Your task to perform on an android device: check google app version Image 0: 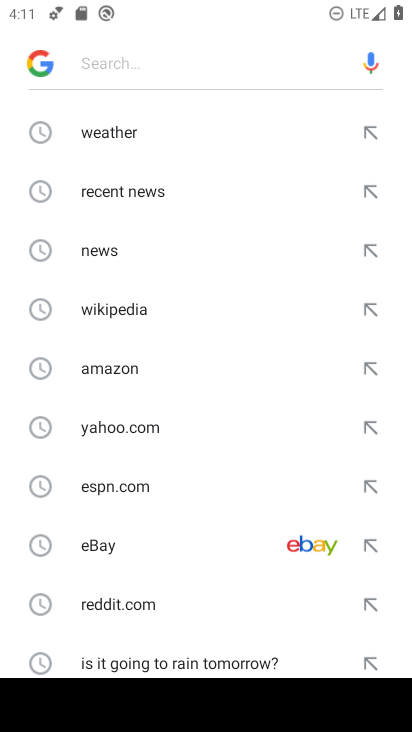
Step 0: press home button
Your task to perform on an android device: check google app version Image 1: 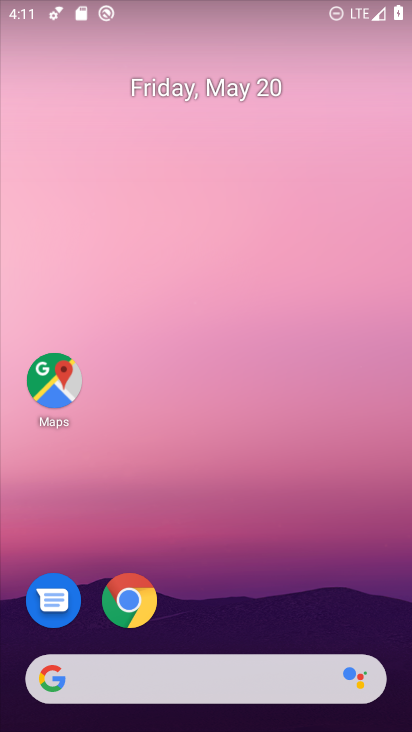
Step 1: drag from (163, 612) to (254, 102)
Your task to perform on an android device: check google app version Image 2: 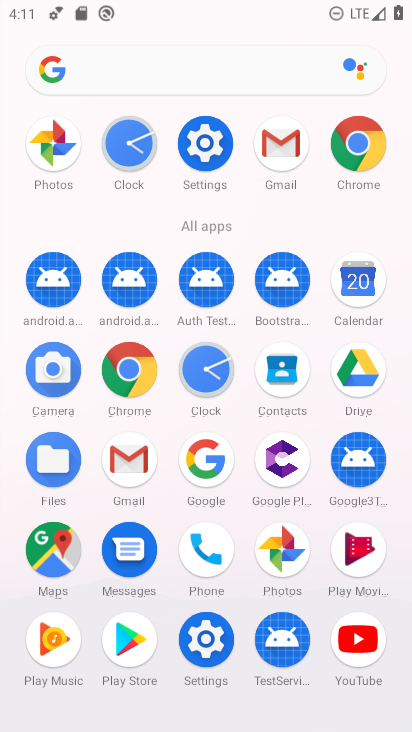
Step 2: click (207, 461)
Your task to perform on an android device: check google app version Image 3: 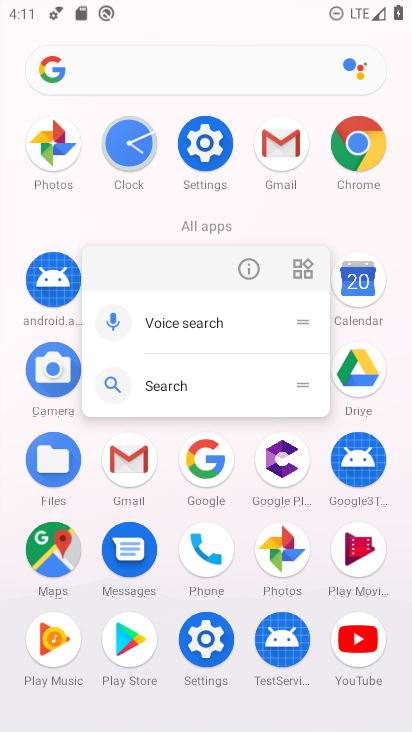
Step 3: click (247, 262)
Your task to perform on an android device: check google app version Image 4: 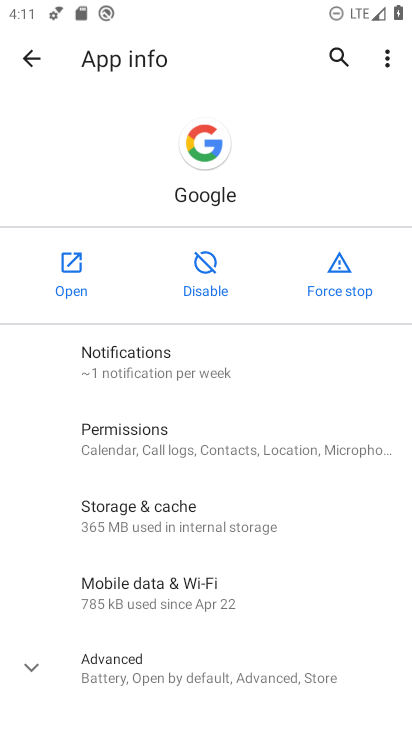
Step 4: drag from (89, 665) to (192, 125)
Your task to perform on an android device: check google app version Image 5: 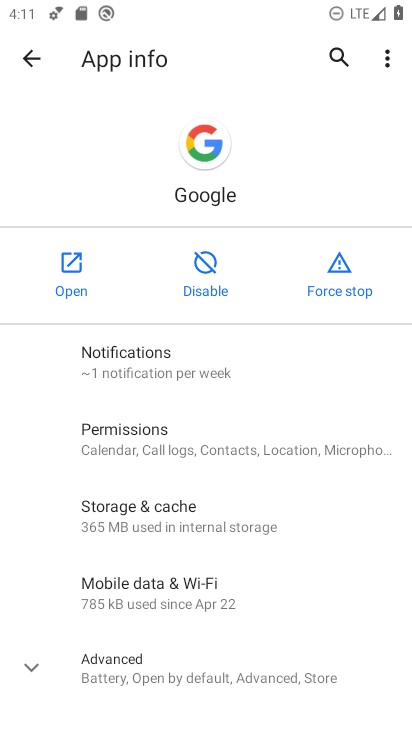
Step 5: click (135, 675)
Your task to perform on an android device: check google app version Image 6: 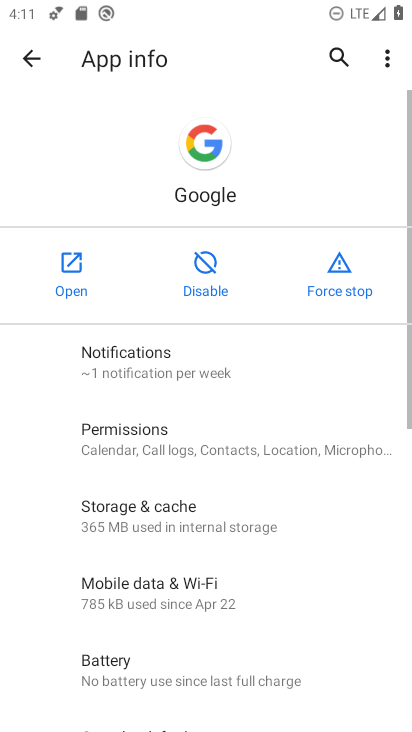
Step 6: task complete